Your task to perform on an android device: delete a single message in the gmail app Image 0: 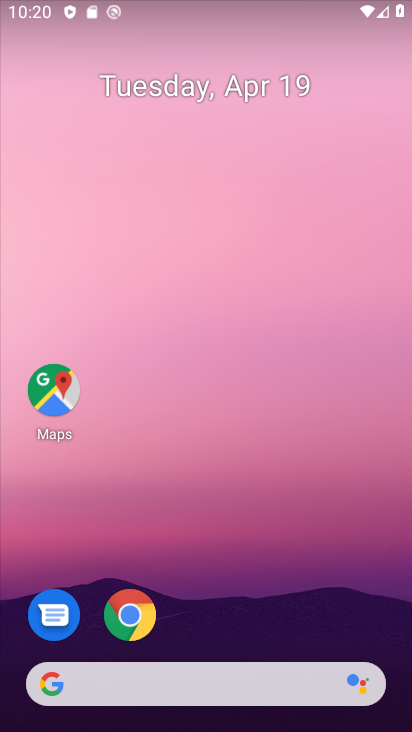
Step 0: drag from (197, 581) to (325, 125)
Your task to perform on an android device: delete a single message in the gmail app Image 1: 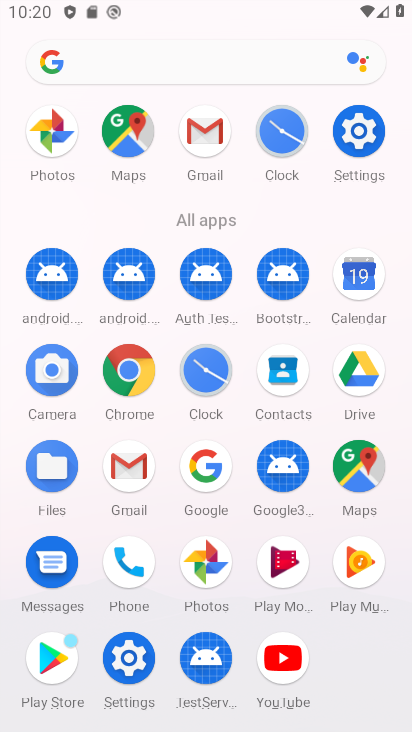
Step 1: click (195, 134)
Your task to perform on an android device: delete a single message in the gmail app Image 2: 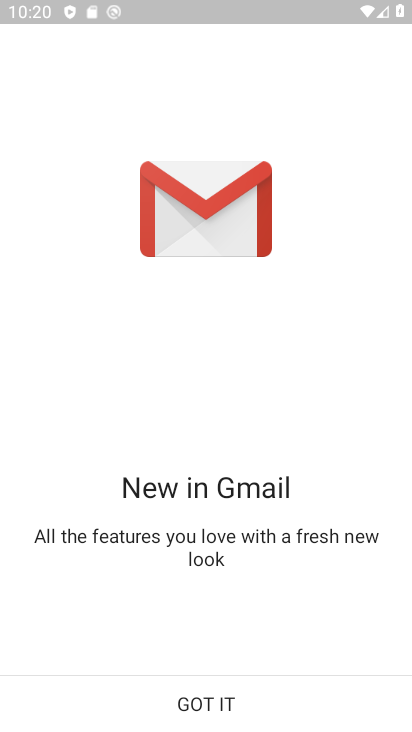
Step 2: click (176, 714)
Your task to perform on an android device: delete a single message in the gmail app Image 3: 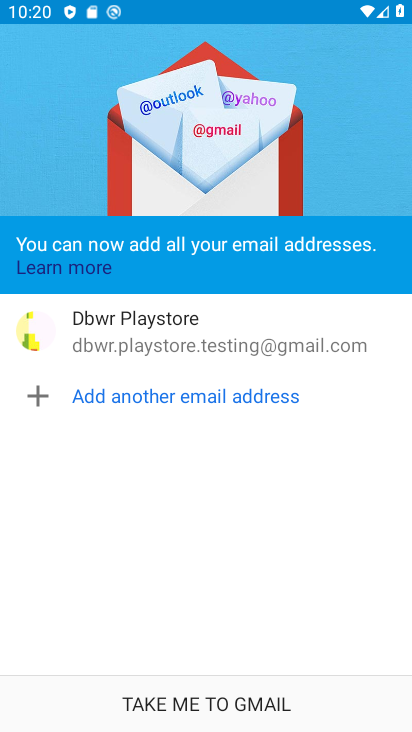
Step 3: click (204, 692)
Your task to perform on an android device: delete a single message in the gmail app Image 4: 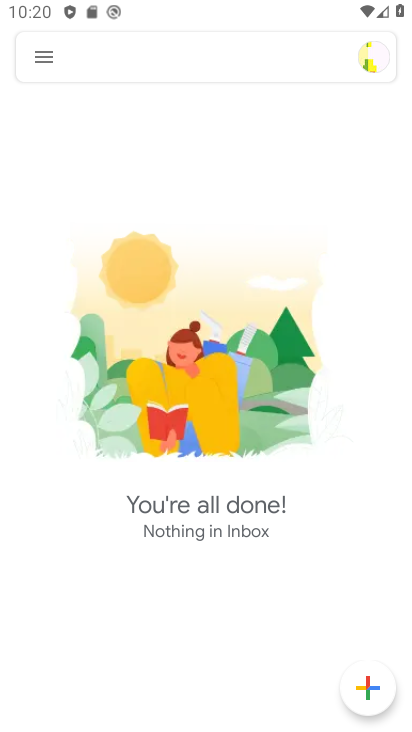
Step 4: click (44, 60)
Your task to perform on an android device: delete a single message in the gmail app Image 5: 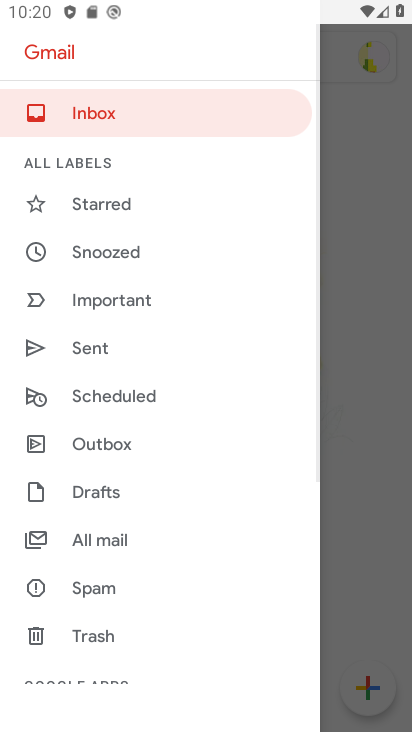
Step 5: click (70, 114)
Your task to perform on an android device: delete a single message in the gmail app Image 6: 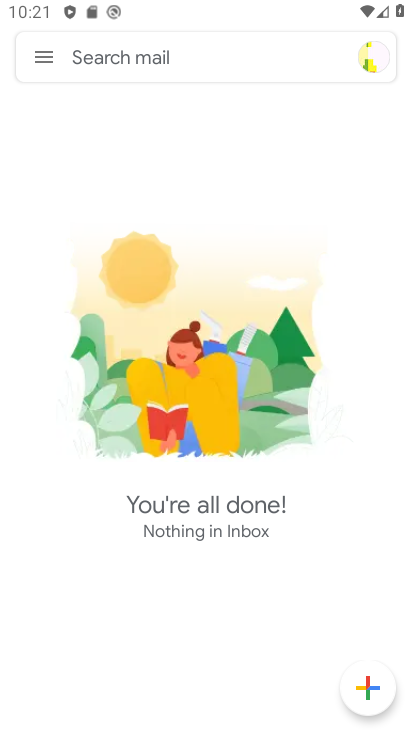
Step 6: task complete